Your task to perform on an android device: When is my next appointment? Image 0: 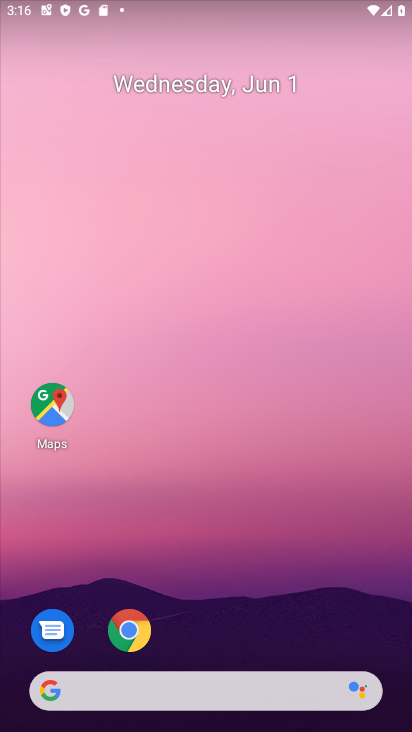
Step 0: drag from (232, 553) to (274, 125)
Your task to perform on an android device: When is my next appointment? Image 1: 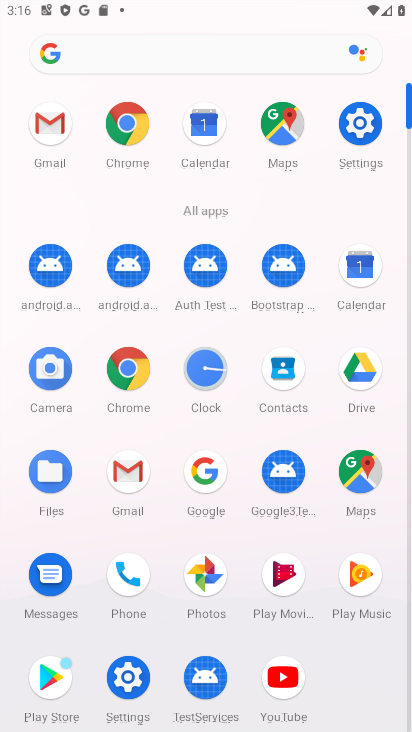
Step 1: click (359, 263)
Your task to perform on an android device: When is my next appointment? Image 2: 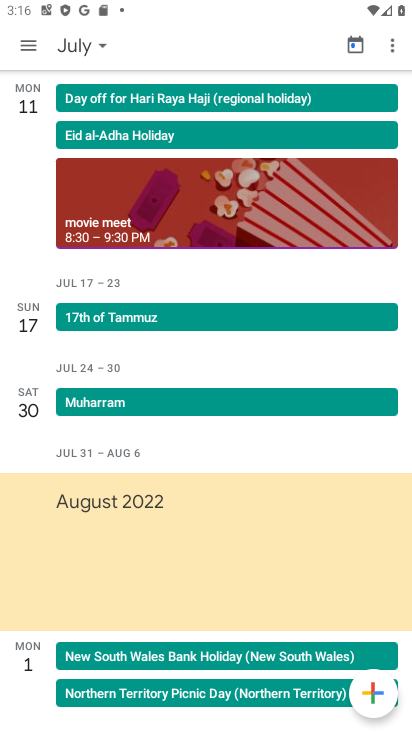
Step 2: click (67, 40)
Your task to perform on an android device: When is my next appointment? Image 3: 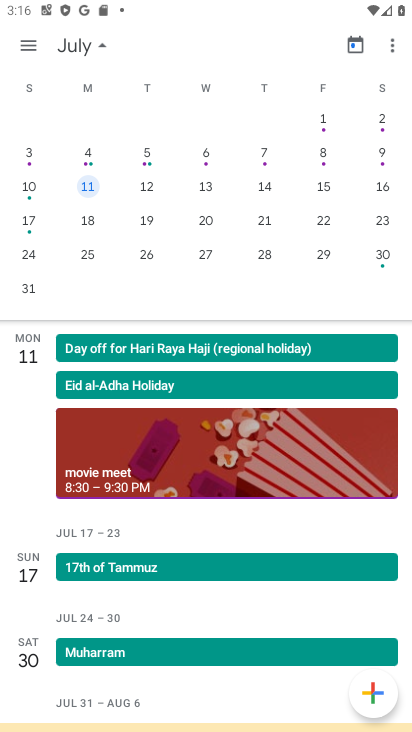
Step 3: drag from (29, 200) to (393, 187)
Your task to perform on an android device: When is my next appointment? Image 4: 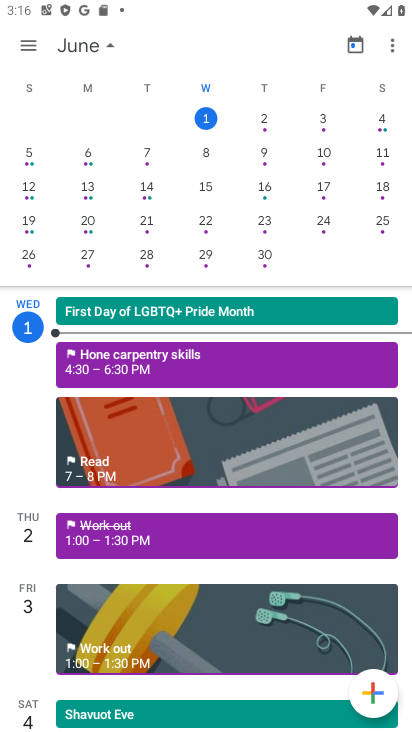
Step 4: drag from (174, 656) to (293, 131)
Your task to perform on an android device: When is my next appointment? Image 5: 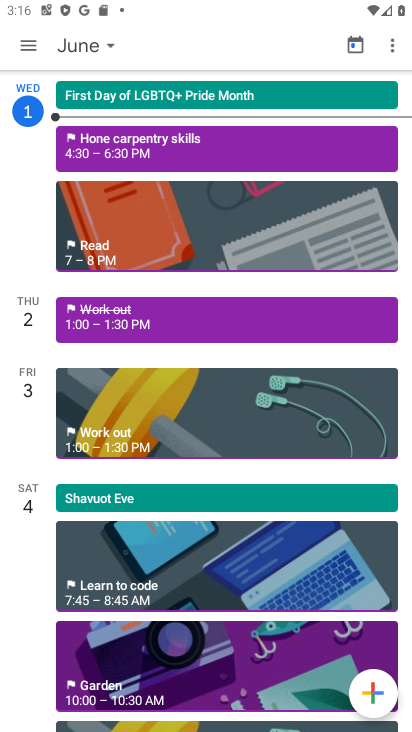
Step 5: drag from (203, 621) to (292, 104)
Your task to perform on an android device: When is my next appointment? Image 6: 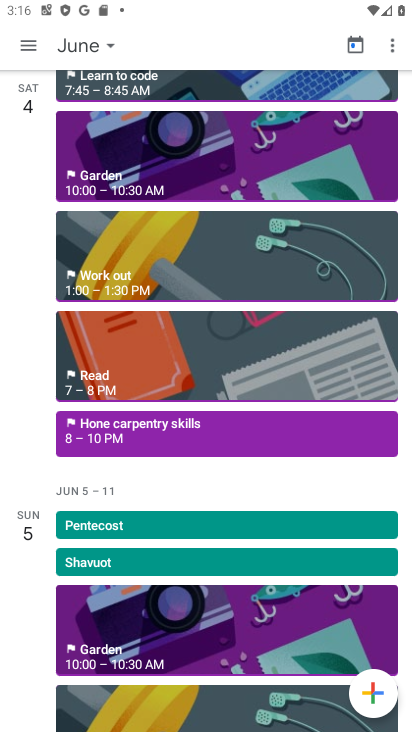
Step 6: drag from (185, 654) to (249, 203)
Your task to perform on an android device: When is my next appointment? Image 7: 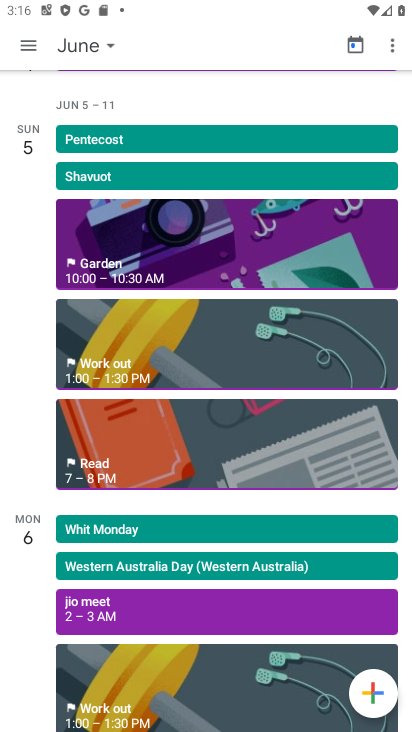
Step 7: click (108, 613)
Your task to perform on an android device: When is my next appointment? Image 8: 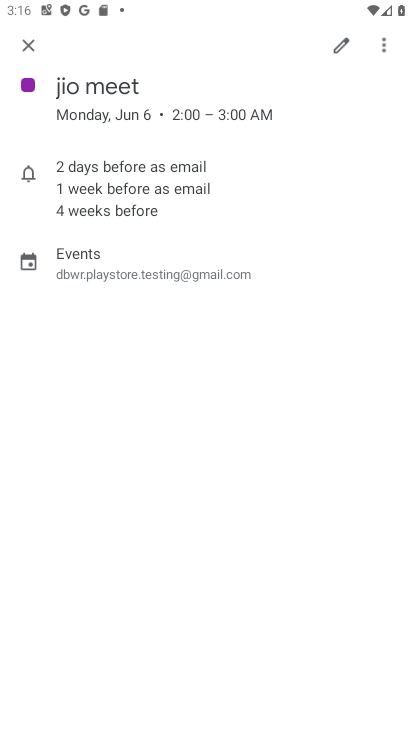
Step 8: task complete